Your task to perform on an android device: Go to Android settings Image 0: 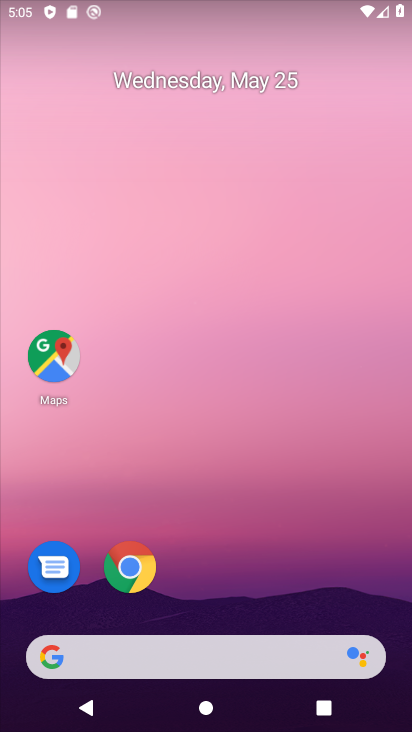
Step 0: drag from (223, 499) to (231, 0)
Your task to perform on an android device: Go to Android settings Image 1: 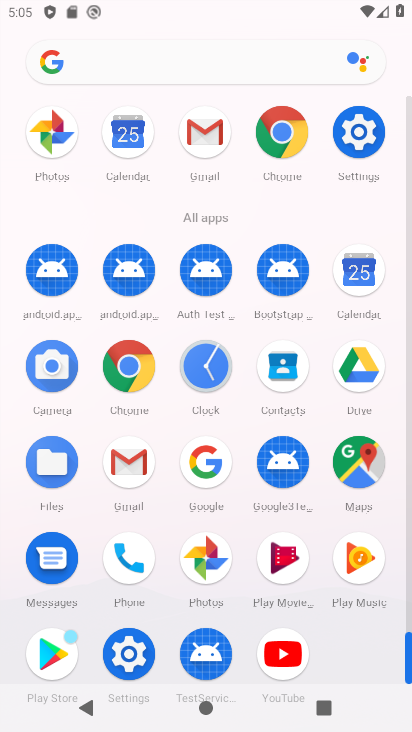
Step 1: drag from (11, 579) to (22, 260)
Your task to perform on an android device: Go to Android settings Image 2: 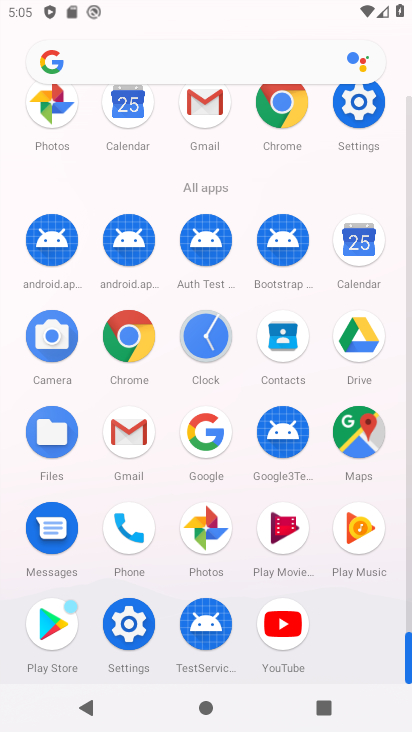
Step 2: click (123, 618)
Your task to perform on an android device: Go to Android settings Image 3: 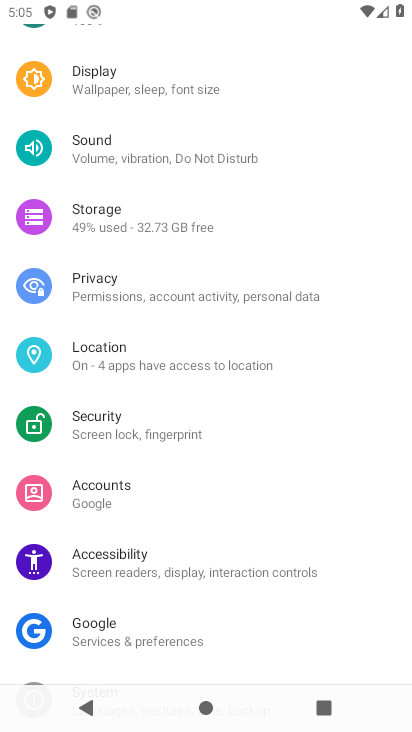
Step 3: task complete